Your task to perform on an android device: star an email in the gmail app Image 0: 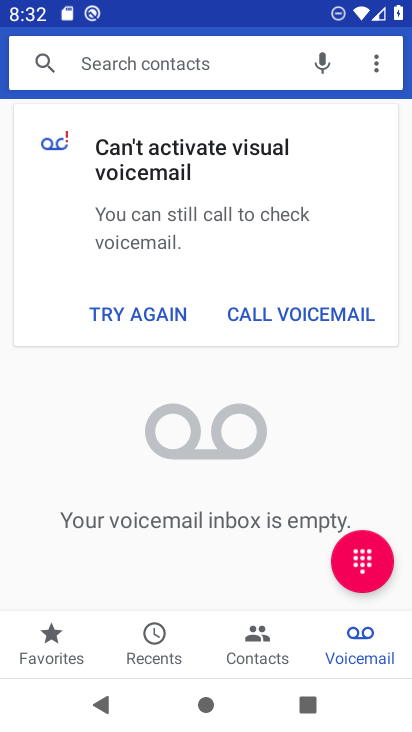
Step 0: press home button
Your task to perform on an android device: star an email in the gmail app Image 1: 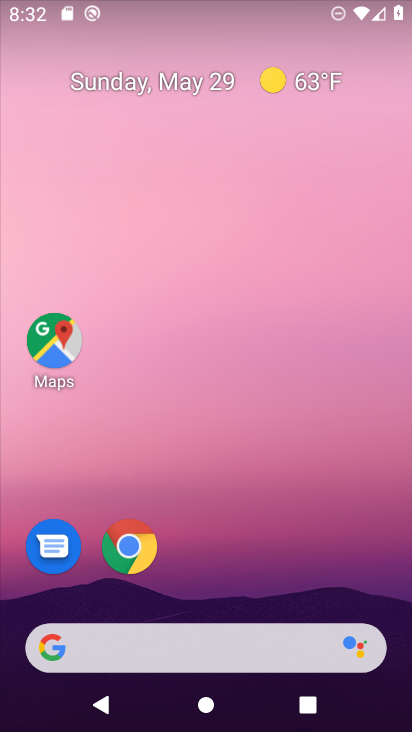
Step 1: drag from (140, 643) to (322, 0)
Your task to perform on an android device: star an email in the gmail app Image 2: 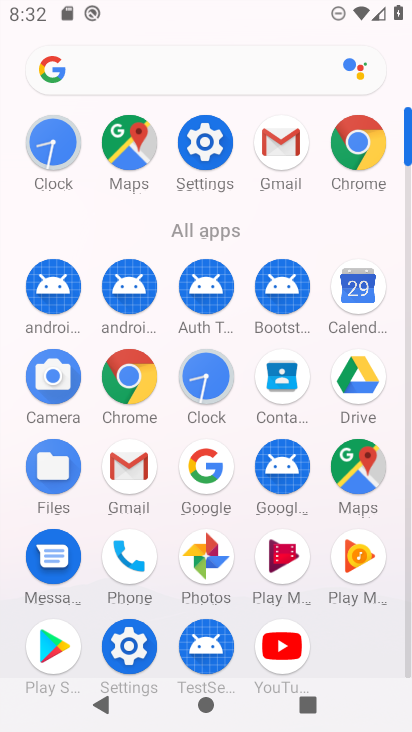
Step 2: click (279, 150)
Your task to perform on an android device: star an email in the gmail app Image 3: 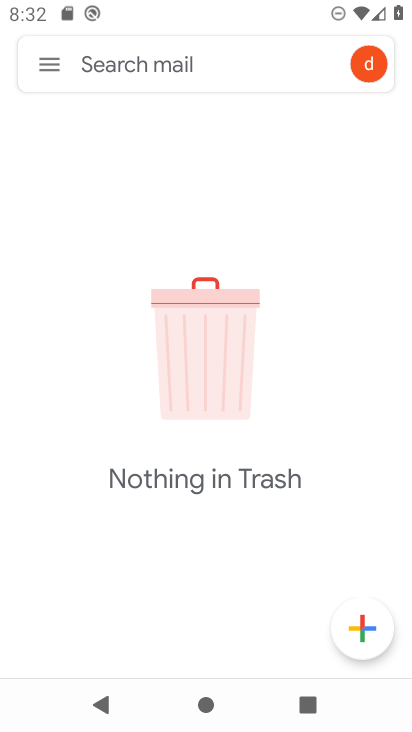
Step 3: click (43, 63)
Your task to perform on an android device: star an email in the gmail app Image 4: 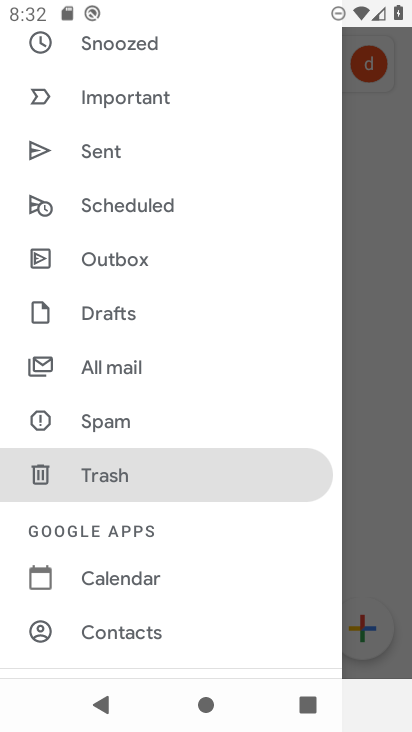
Step 4: click (141, 370)
Your task to perform on an android device: star an email in the gmail app Image 5: 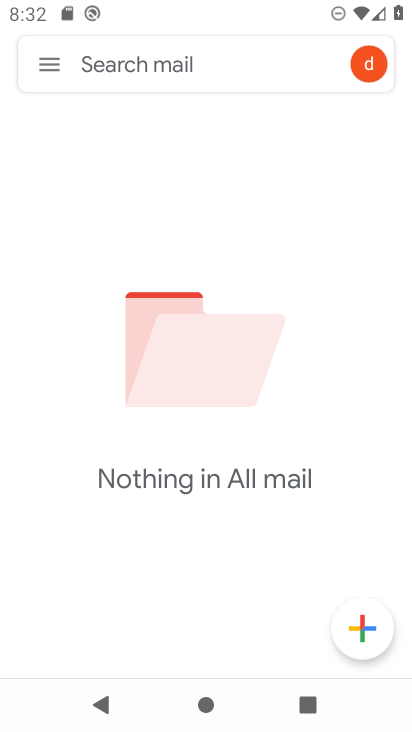
Step 5: task complete